Your task to perform on an android device: see tabs open on other devices in the chrome app Image 0: 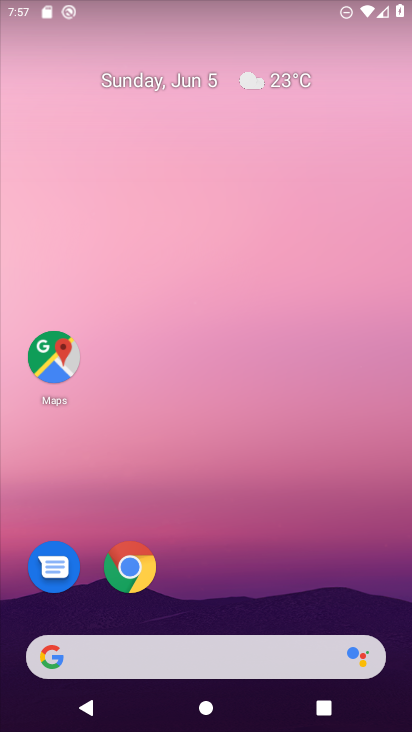
Step 0: click (388, 659)
Your task to perform on an android device: see tabs open on other devices in the chrome app Image 1: 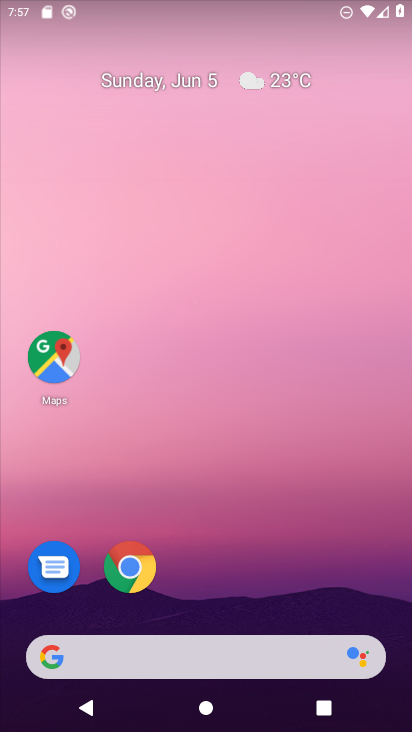
Step 1: drag from (389, 441) to (259, 1)
Your task to perform on an android device: see tabs open on other devices in the chrome app Image 2: 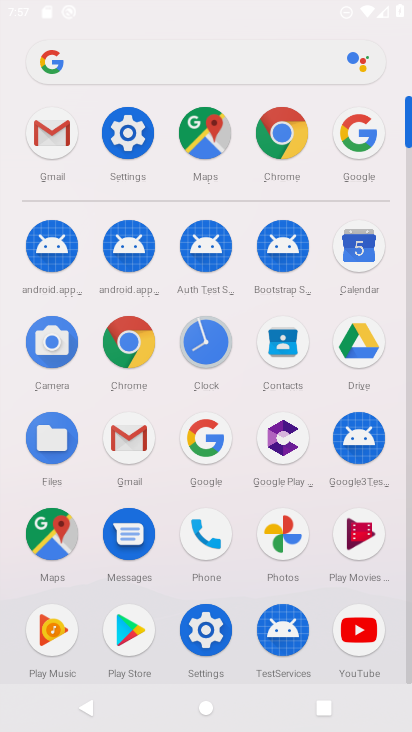
Step 2: click (272, 132)
Your task to perform on an android device: see tabs open on other devices in the chrome app Image 3: 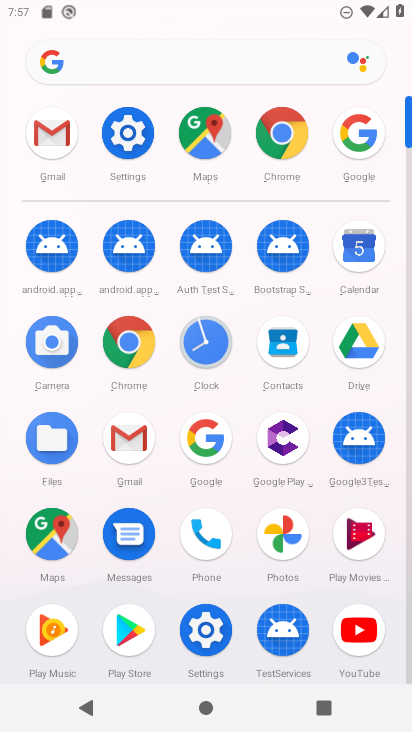
Step 3: click (276, 125)
Your task to perform on an android device: see tabs open on other devices in the chrome app Image 4: 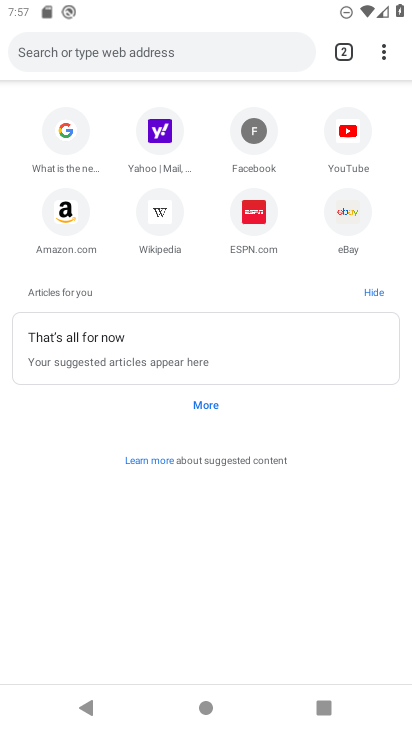
Step 4: task complete